Your task to perform on an android device: Check the news Image 0: 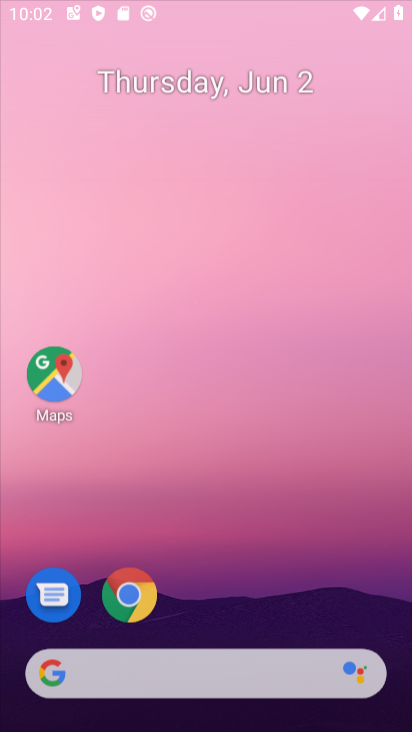
Step 0: drag from (122, 728) to (311, 77)
Your task to perform on an android device: Check the news Image 1: 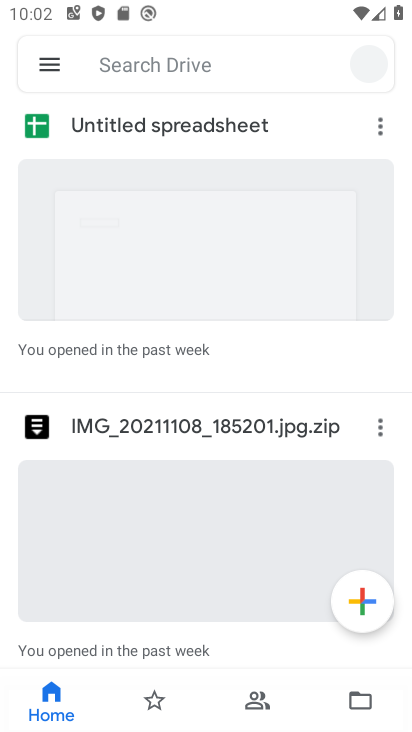
Step 1: press home button
Your task to perform on an android device: Check the news Image 2: 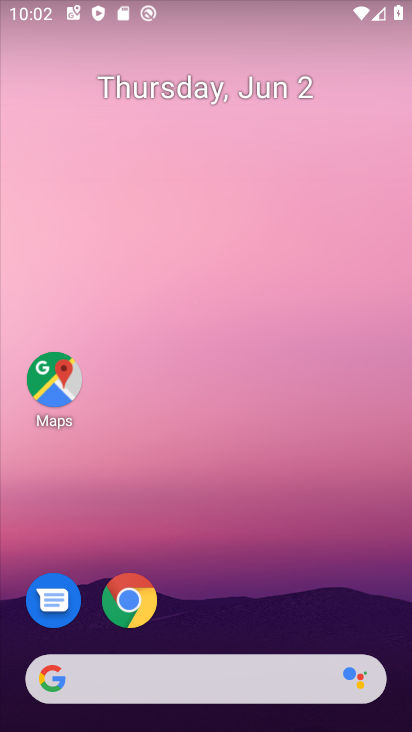
Step 2: click (116, 681)
Your task to perform on an android device: Check the news Image 3: 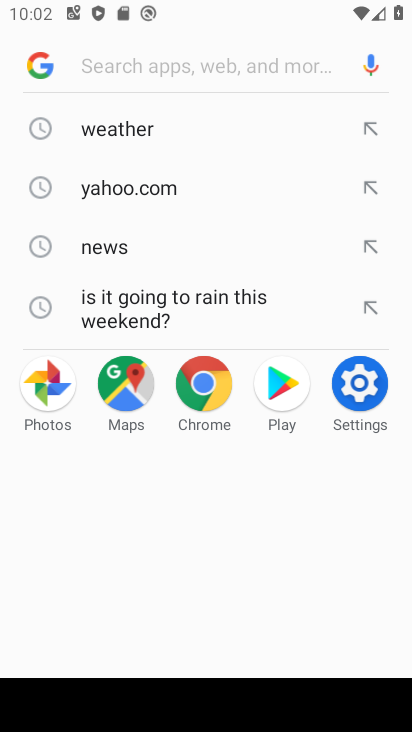
Step 3: click (107, 239)
Your task to perform on an android device: Check the news Image 4: 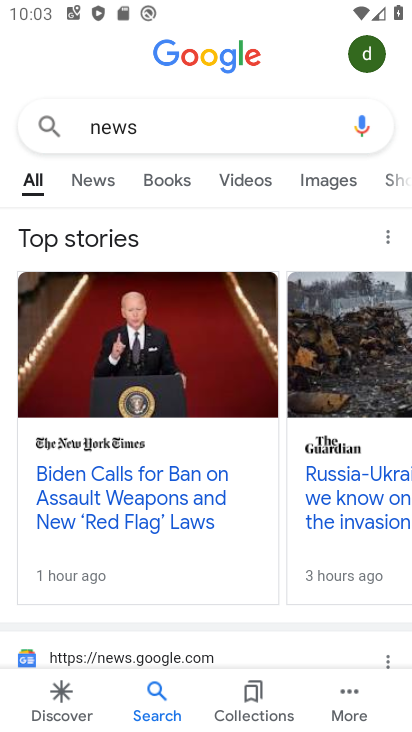
Step 4: task complete